Your task to perform on an android device: manage bookmarks in the chrome app Image 0: 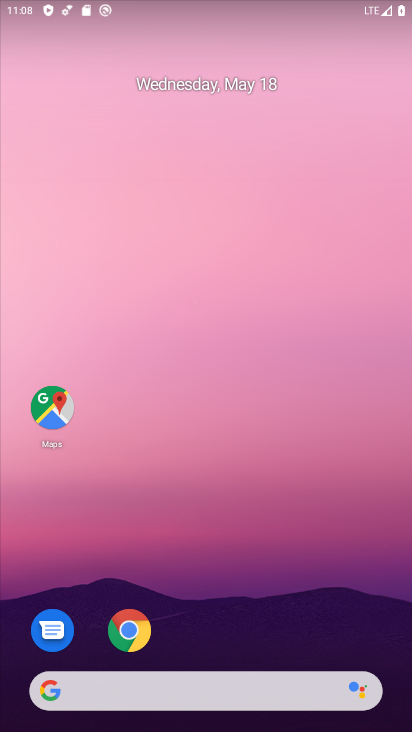
Step 0: drag from (204, 558) to (218, 265)
Your task to perform on an android device: manage bookmarks in the chrome app Image 1: 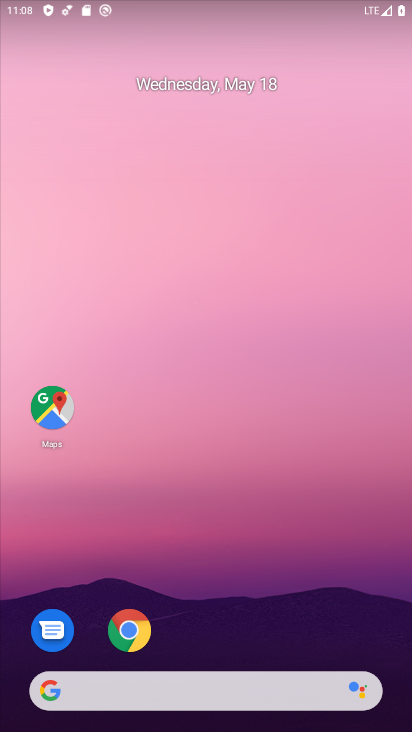
Step 1: click (130, 646)
Your task to perform on an android device: manage bookmarks in the chrome app Image 2: 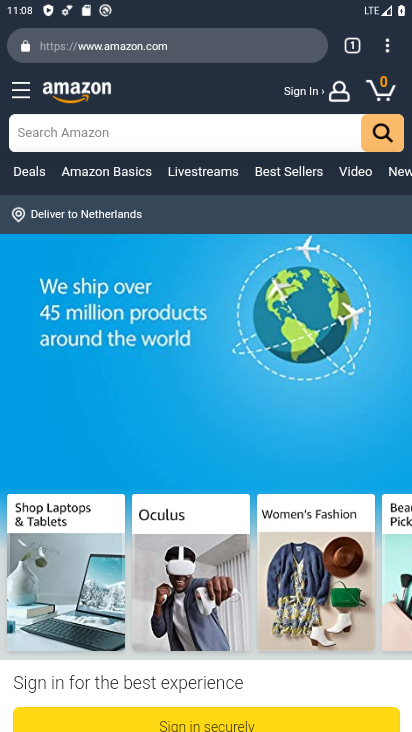
Step 2: click (391, 47)
Your task to perform on an android device: manage bookmarks in the chrome app Image 3: 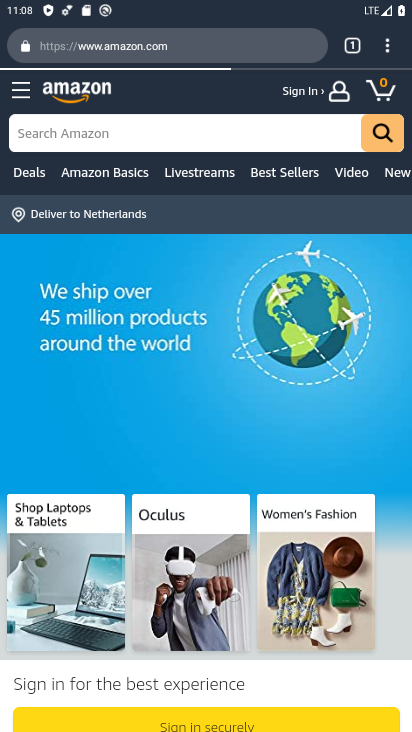
Step 3: click (391, 47)
Your task to perform on an android device: manage bookmarks in the chrome app Image 4: 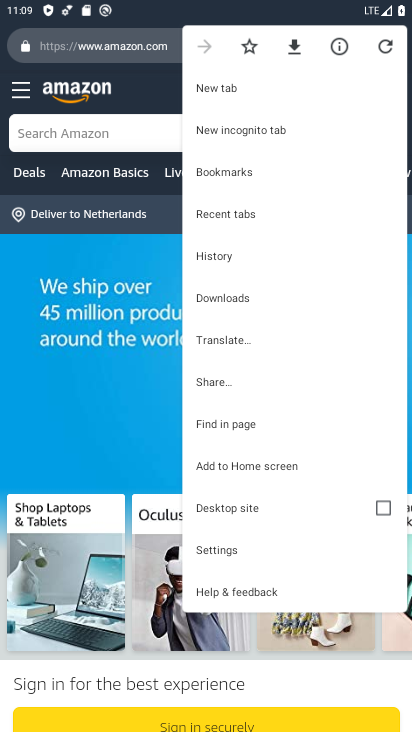
Step 4: click (232, 174)
Your task to perform on an android device: manage bookmarks in the chrome app Image 5: 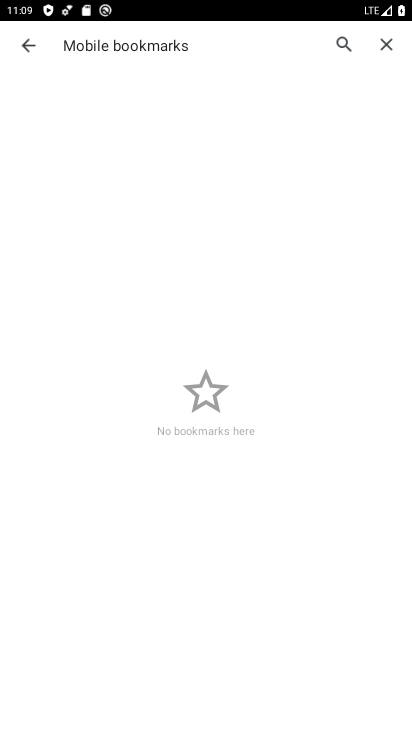
Step 5: task complete